Your task to perform on an android device: turn on showing notifications on the lock screen Image 0: 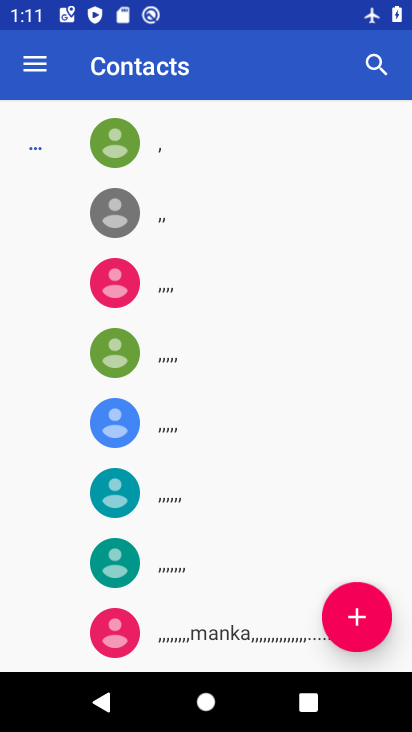
Step 0: press home button
Your task to perform on an android device: turn on showing notifications on the lock screen Image 1: 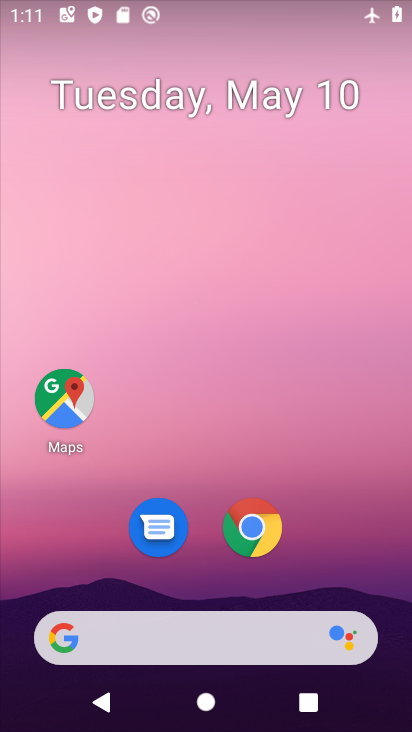
Step 1: drag from (168, 607) to (232, 181)
Your task to perform on an android device: turn on showing notifications on the lock screen Image 2: 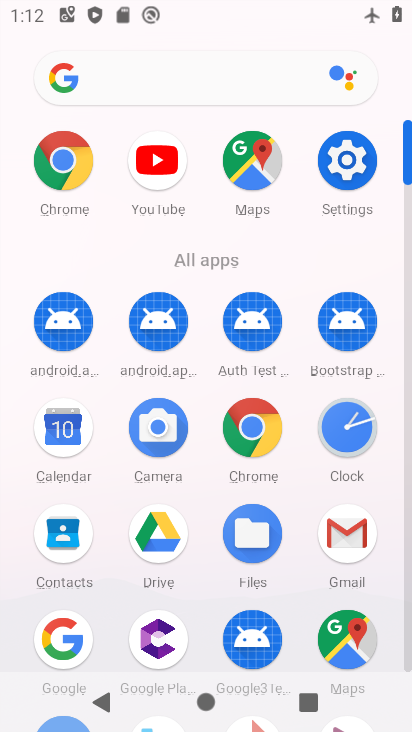
Step 2: click (353, 158)
Your task to perform on an android device: turn on showing notifications on the lock screen Image 3: 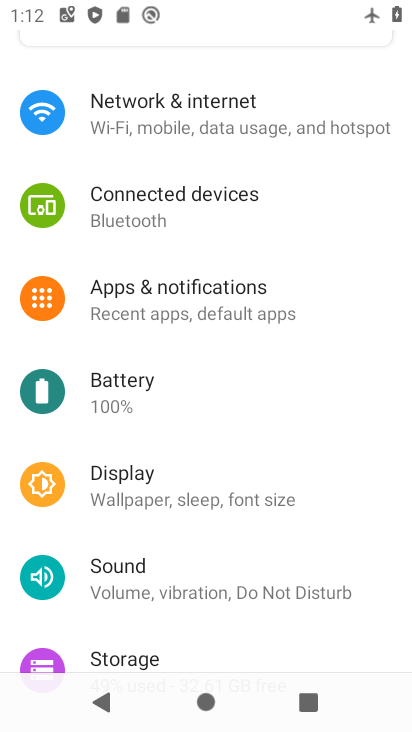
Step 3: click (196, 293)
Your task to perform on an android device: turn on showing notifications on the lock screen Image 4: 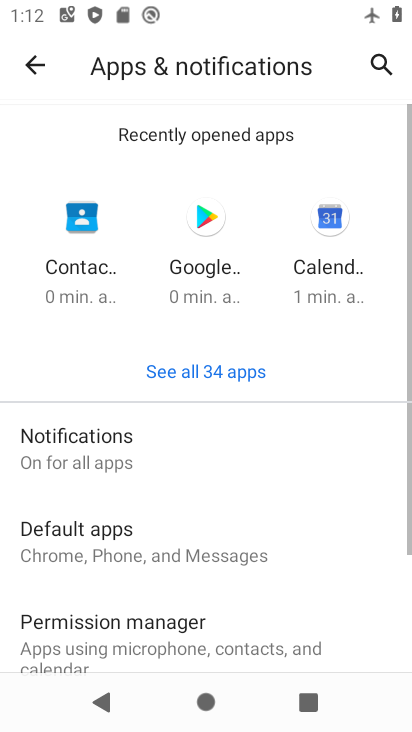
Step 4: click (123, 451)
Your task to perform on an android device: turn on showing notifications on the lock screen Image 5: 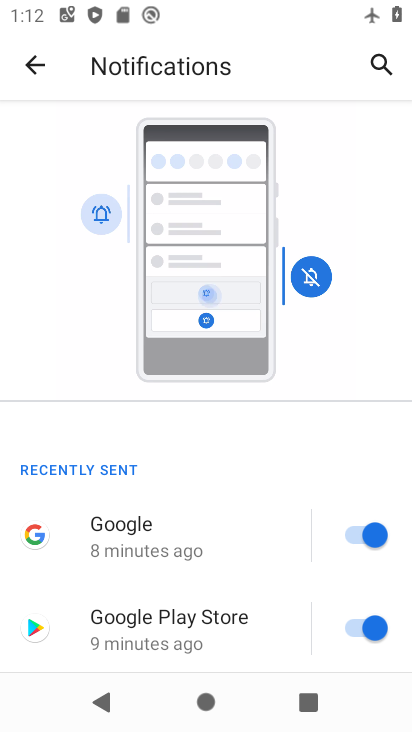
Step 5: drag from (169, 597) to (166, 262)
Your task to perform on an android device: turn on showing notifications on the lock screen Image 6: 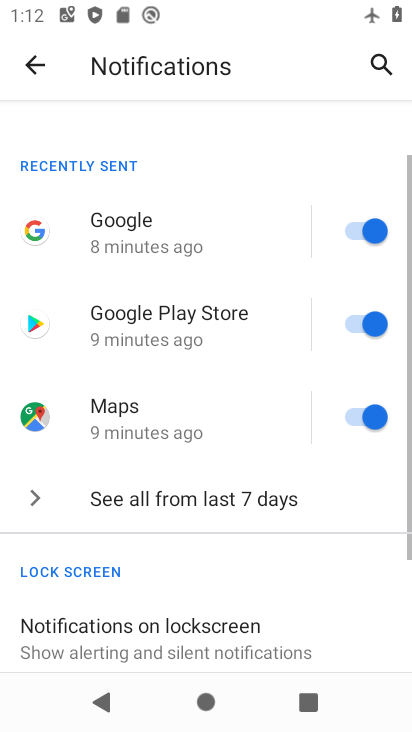
Step 6: drag from (180, 619) to (185, 374)
Your task to perform on an android device: turn on showing notifications on the lock screen Image 7: 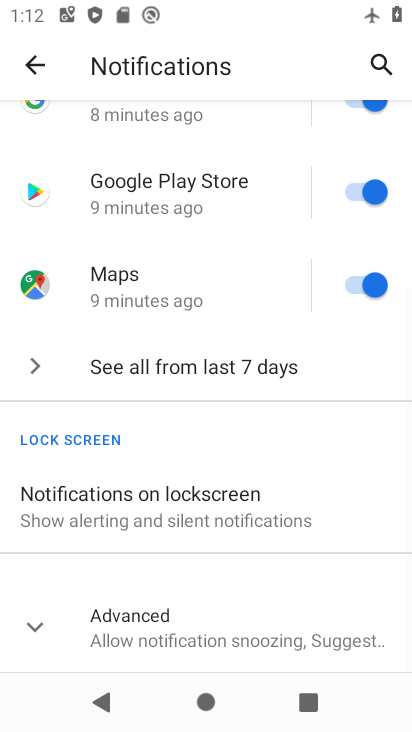
Step 7: click (169, 499)
Your task to perform on an android device: turn on showing notifications on the lock screen Image 8: 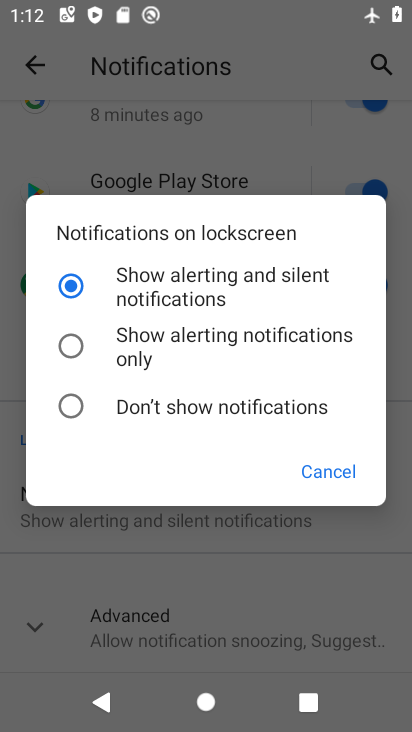
Step 8: task complete